Your task to perform on an android device: Go to network settings Image 0: 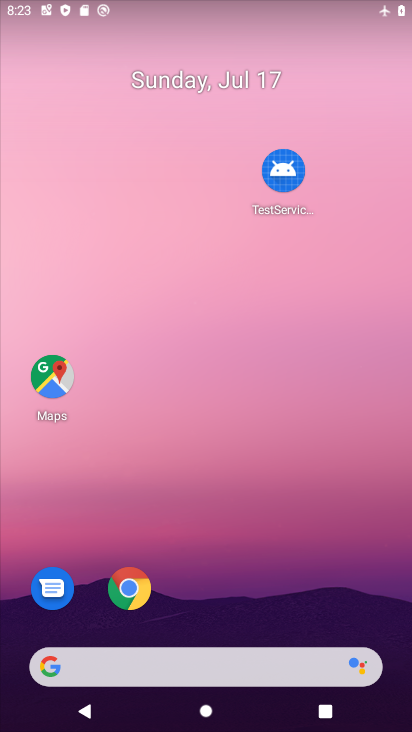
Step 0: drag from (215, 714) to (269, 94)
Your task to perform on an android device: Go to network settings Image 1: 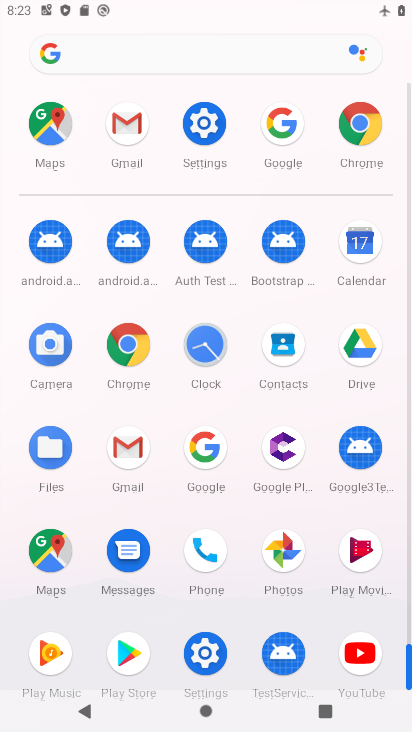
Step 1: click (219, 136)
Your task to perform on an android device: Go to network settings Image 2: 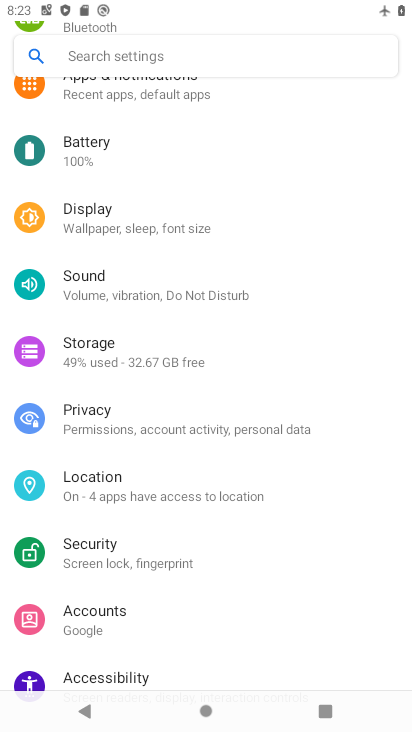
Step 2: drag from (154, 259) to (158, 676)
Your task to perform on an android device: Go to network settings Image 3: 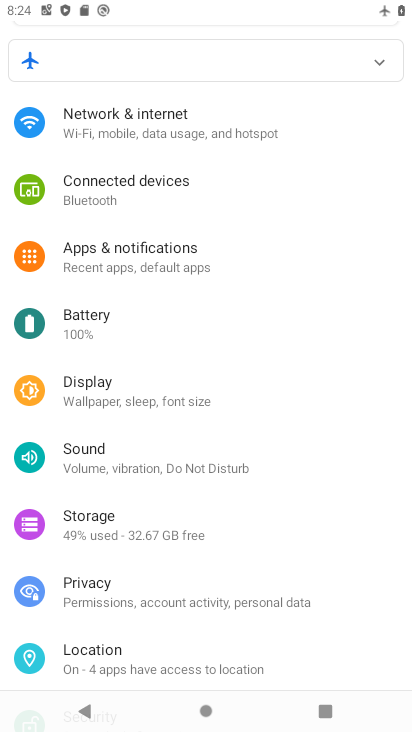
Step 3: click (130, 142)
Your task to perform on an android device: Go to network settings Image 4: 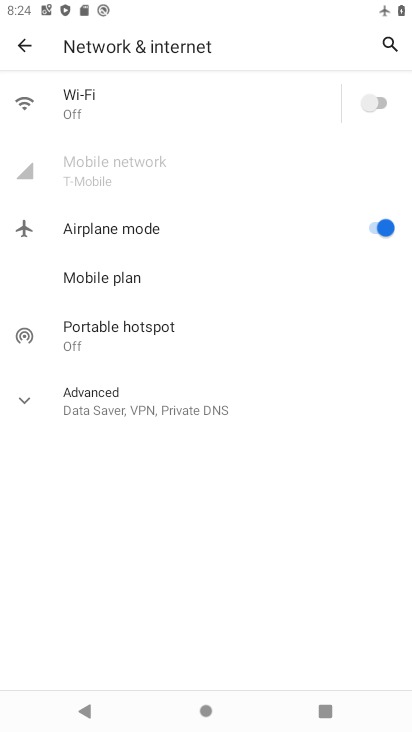
Step 4: click (111, 173)
Your task to perform on an android device: Go to network settings Image 5: 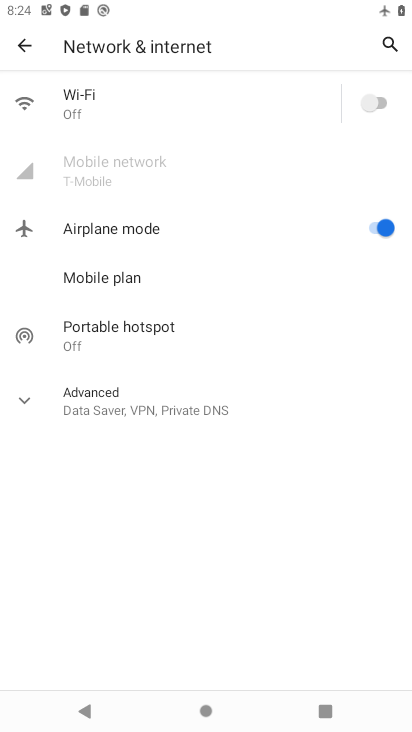
Step 5: task complete